Your task to perform on an android device: open app "PlayWell" (install if not already installed) Image 0: 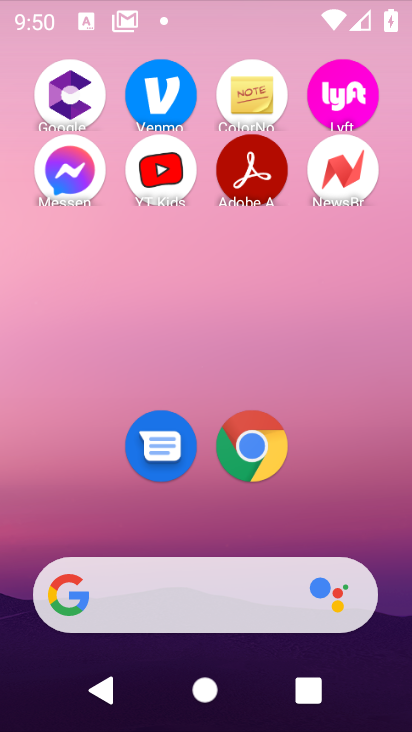
Step 0: drag from (149, 510) to (175, 115)
Your task to perform on an android device: open app "PlayWell" (install if not already installed) Image 1: 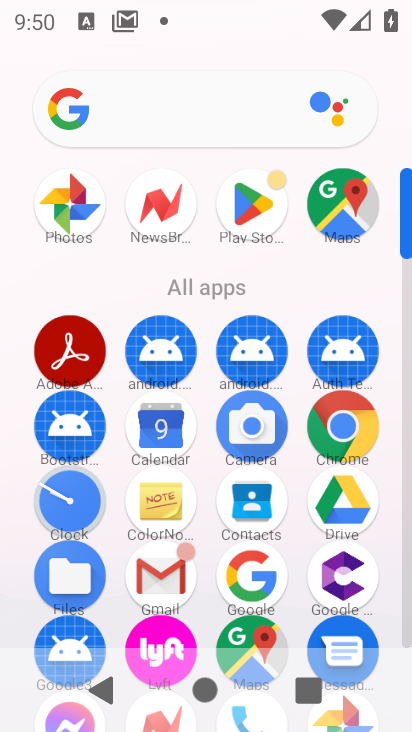
Step 1: click (254, 205)
Your task to perform on an android device: open app "PlayWell" (install if not already installed) Image 2: 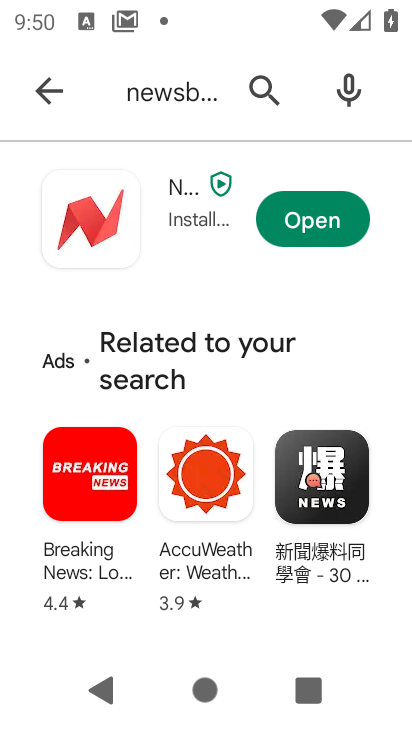
Step 2: click (268, 91)
Your task to perform on an android device: open app "PlayWell" (install if not already installed) Image 3: 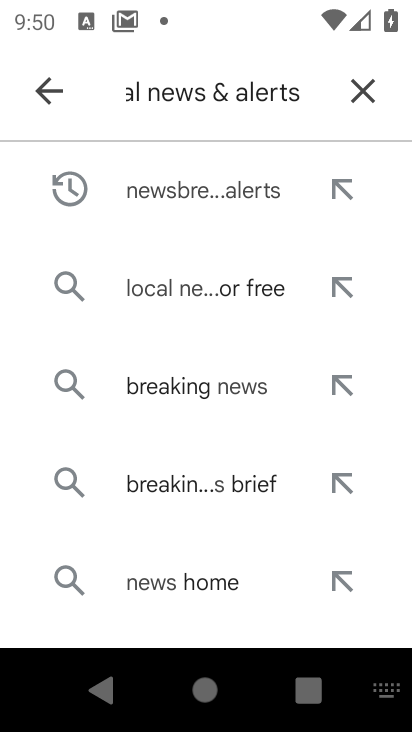
Step 3: click (370, 93)
Your task to perform on an android device: open app "PlayWell" (install if not already installed) Image 4: 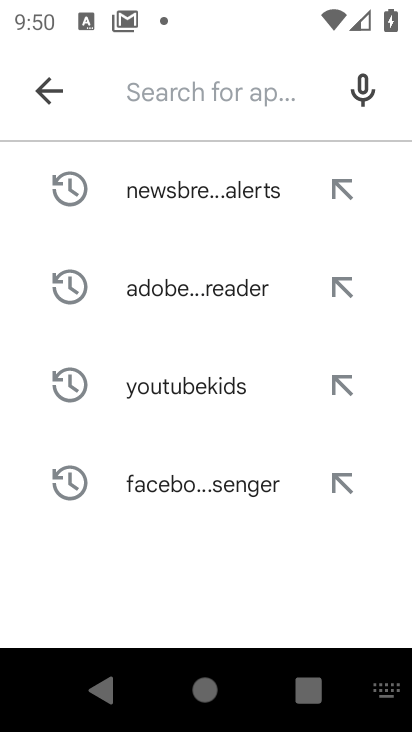
Step 4: click (160, 81)
Your task to perform on an android device: open app "PlayWell" (install if not already installed) Image 5: 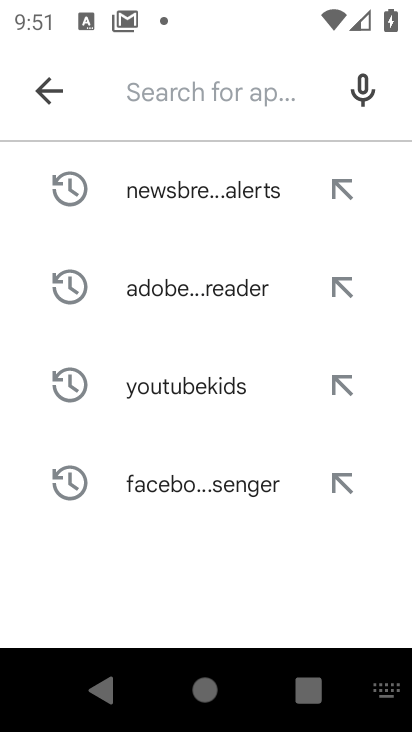
Step 5: type "playwell"
Your task to perform on an android device: open app "PlayWell" (install if not already installed) Image 6: 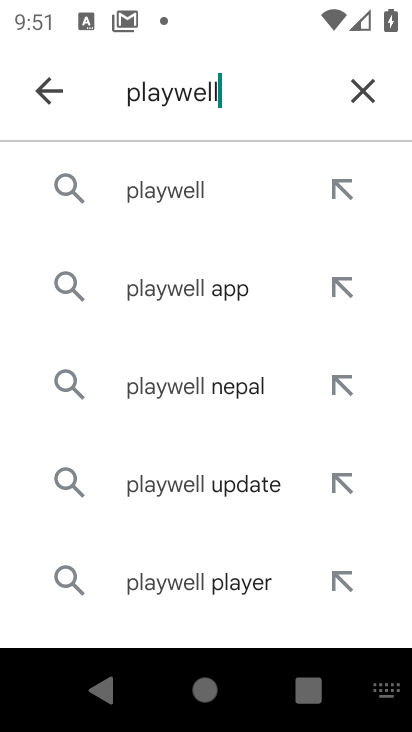
Step 6: click (184, 197)
Your task to perform on an android device: open app "PlayWell" (install if not already installed) Image 7: 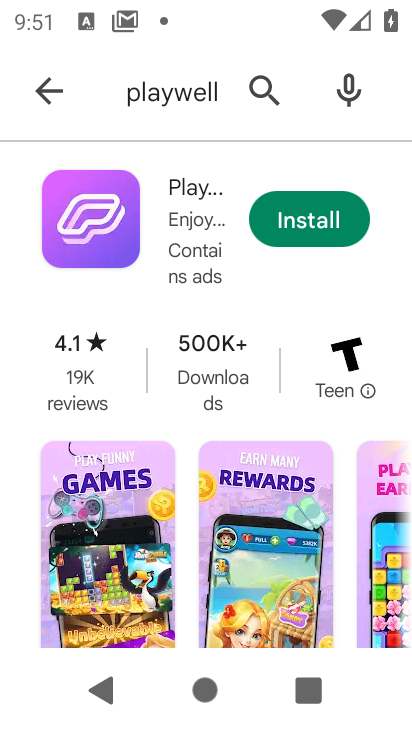
Step 7: click (329, 242)
Your task to perform on an android device: open app "PlayWell" (install if not already installed) Image 8: 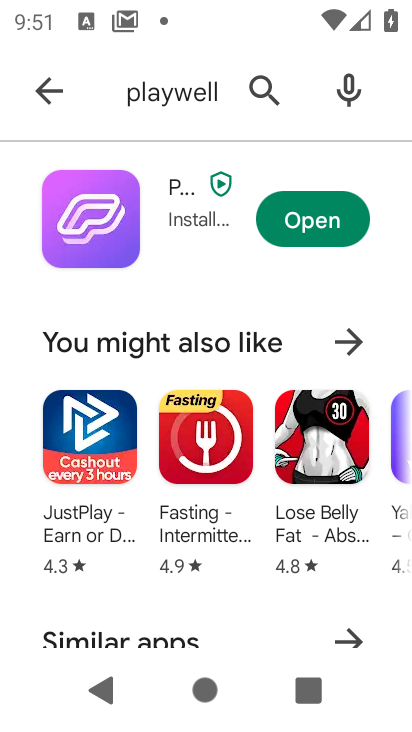
Step 8: click (287, 211)
Your task to perform on an android device: open app "PlayWell" (install if not already installed) Image 9: 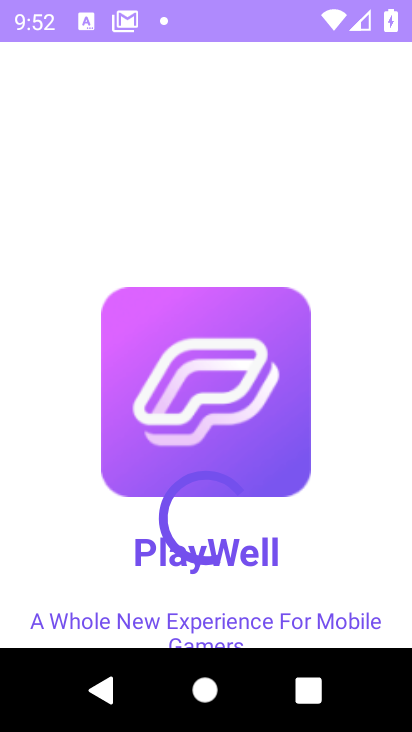
Step 9: task complete